Your task to perform on an android device: Open Google Maps Image 0: 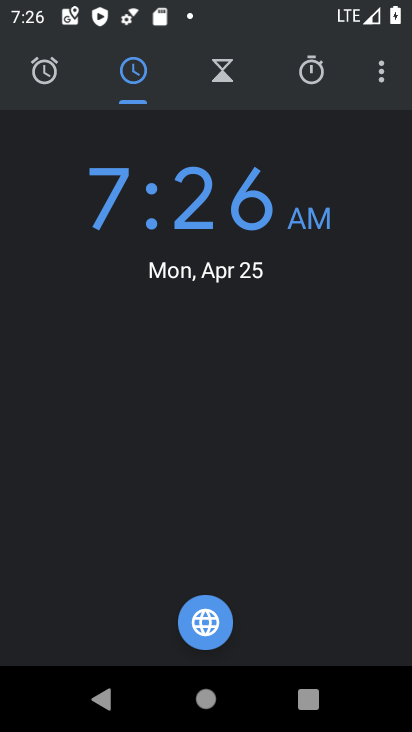
Step 0: press home button
Your task to perform on an android device: Open Google Maps Image 1: 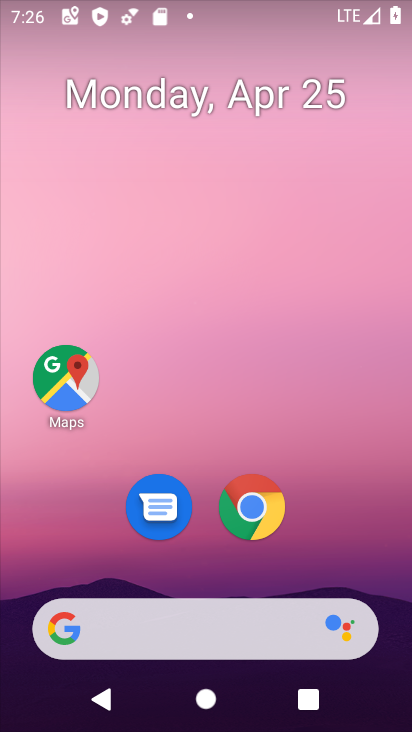
Step 1: drag from (359, 529) to (395, 118)
Your task to perform on an android device: Open Google Maps Image 2: 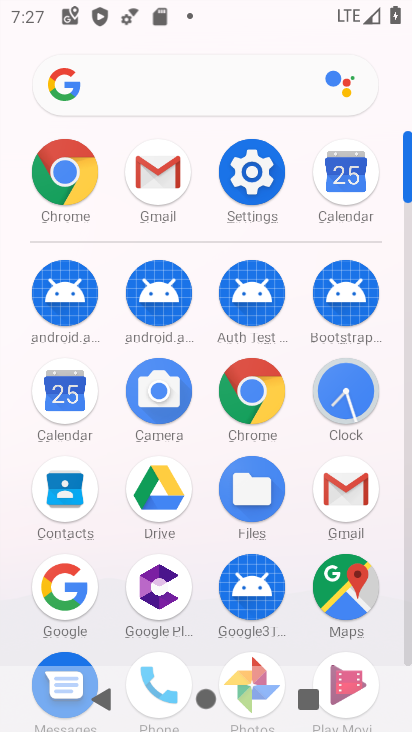
Step 2: click (342, 535)
Your task to perform on an android device: Open Google Maps Image 3: 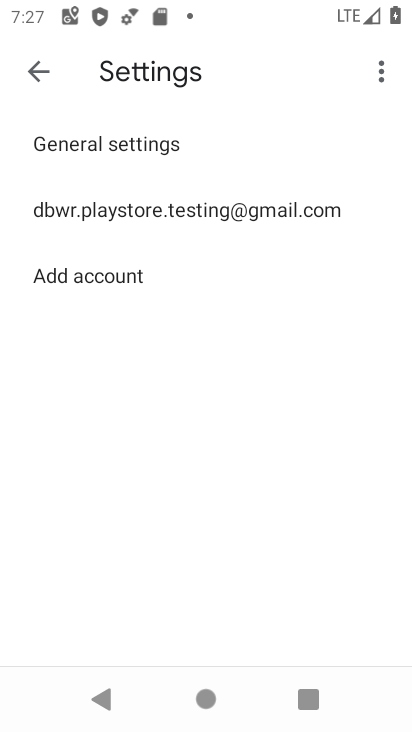
Step 3: press home button
Your task to perform on an android device: Open Google Maps Image 4: 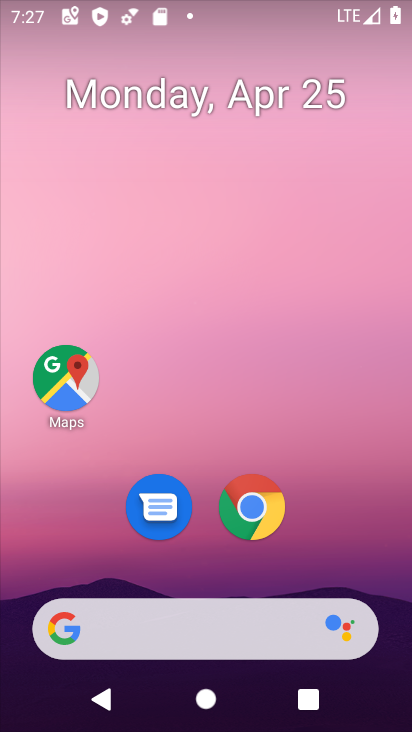
Step 4: click (75, 378)
Your task to perform on an android device: Open Google Maps Image 5: 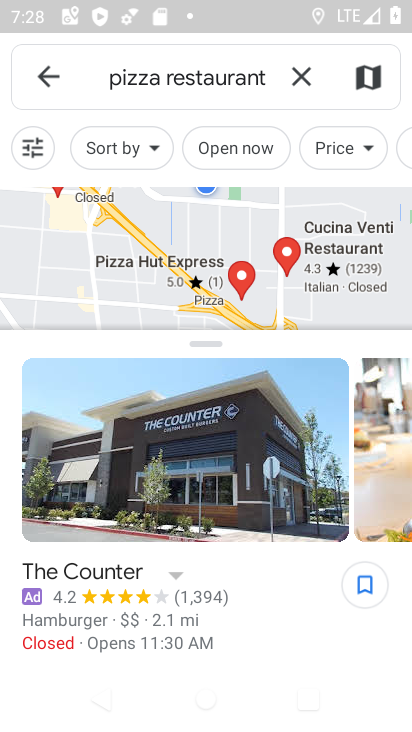
Step 5: click (361, 67)
Your task to perform on an android device: Open Google Maps Image 6: 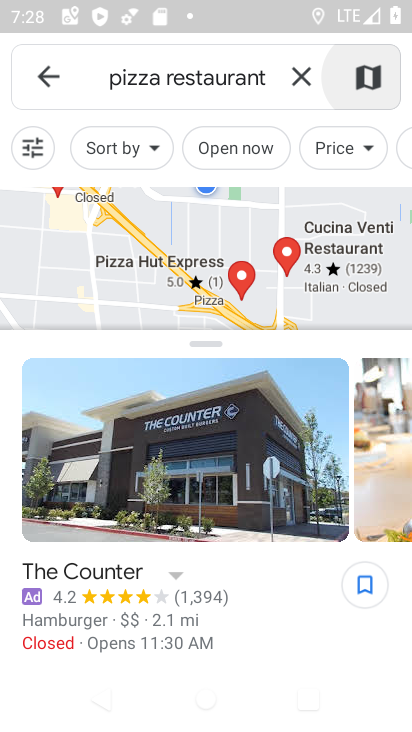
Step 6: task complete